Your task to perform on an android device: open app "McDonald's" (install if not already installed) Image 0: 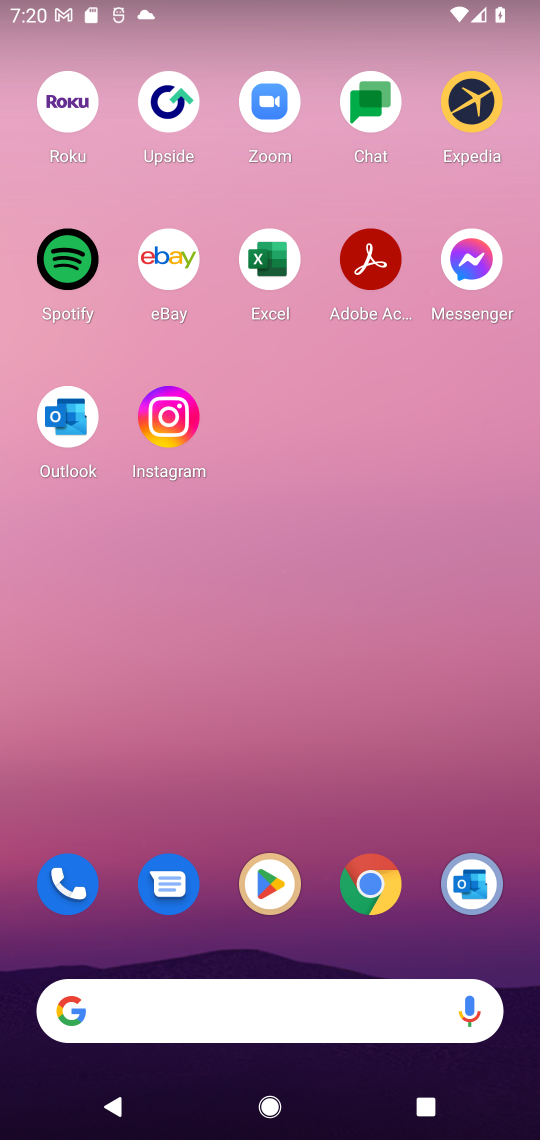
Step 0: drag from (232, 1016) to (308, 176)
Your task to perform on an android device: open app "McDonald's" (install if not already installed) Image 1: 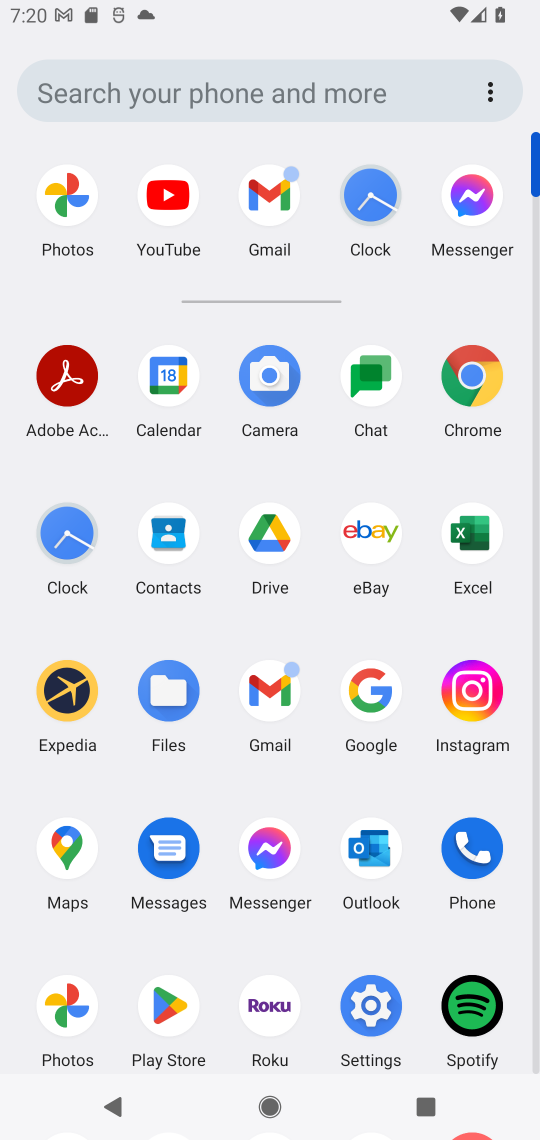
Step 1: click (168, 1014)
Your task to perform on an android device: open app "McDonald's" (install if not already installed) Image 2: 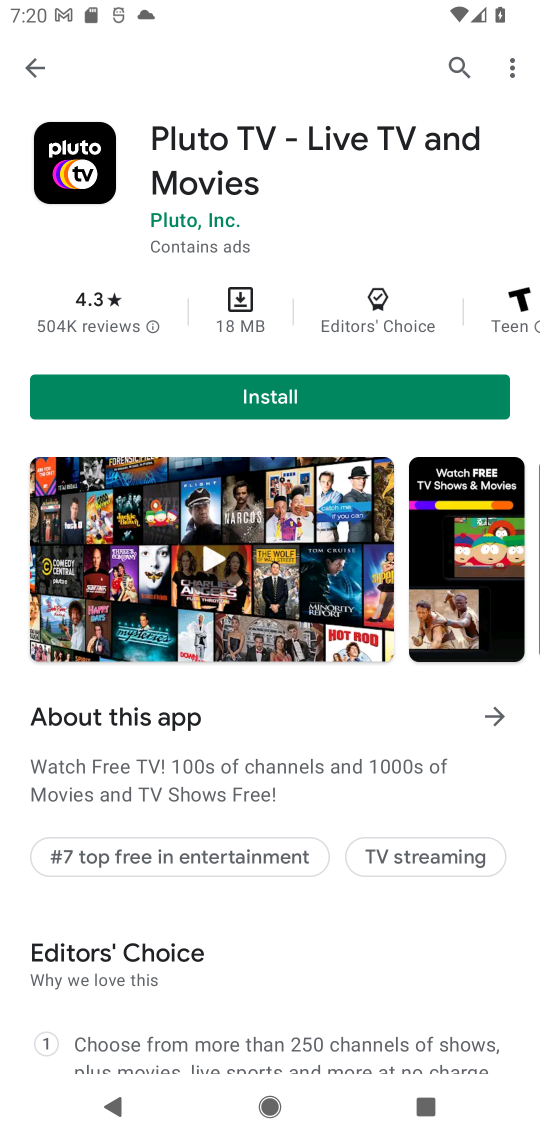
Step 2: press back button
Your task to perform on an android device: open app "McDonald's" (install if not already installed) Image 3: 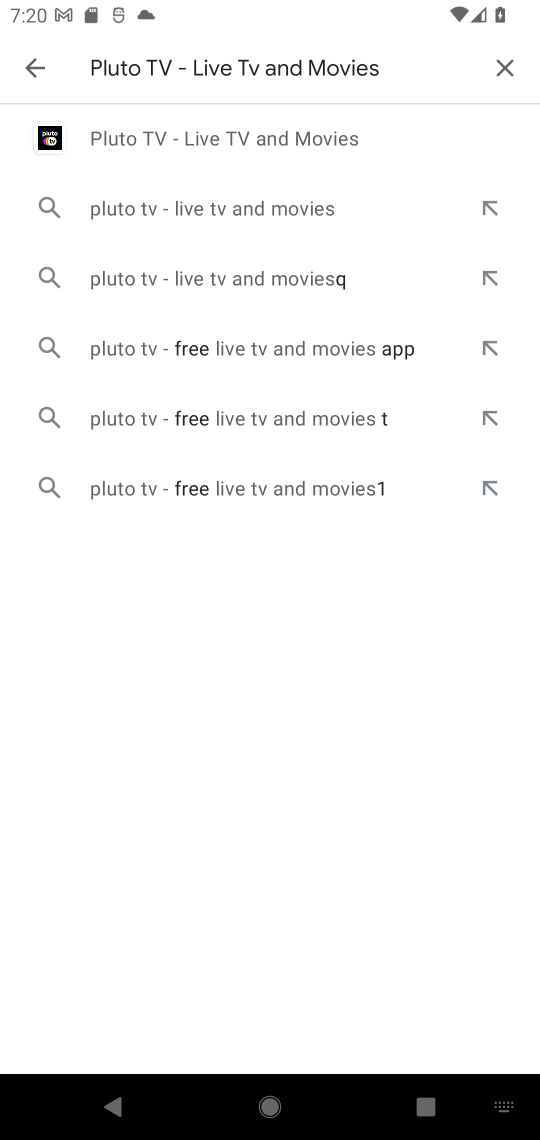
Step 3: press back button
Your task to perform on an android device: open app "McDonald's" (install if not already installed) Image 4: 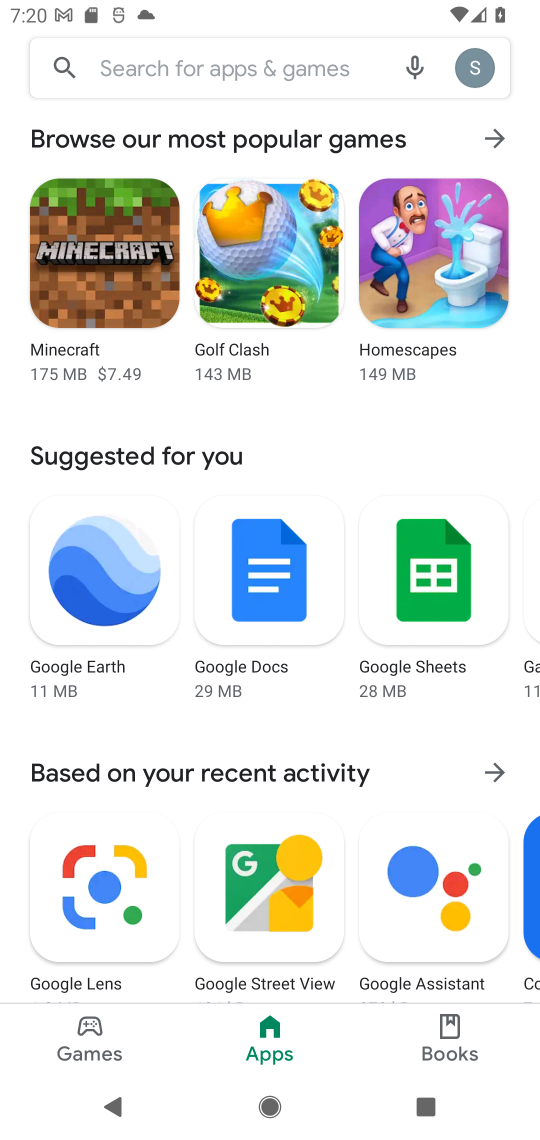
Step 4: click (335, 80)
Your task to perform on an android device: open app "McDonald's" (install if not already installed) Image 5: 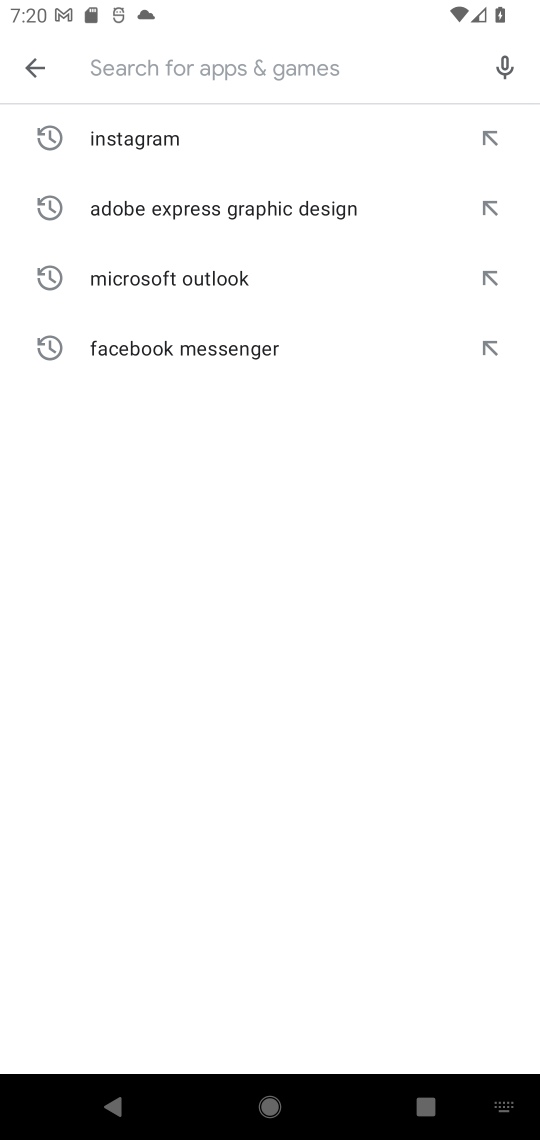
Step 5: type "McDonald's"
Your task to perform on an android device: open app "McDonald's" (install if not already installed) Image 6: 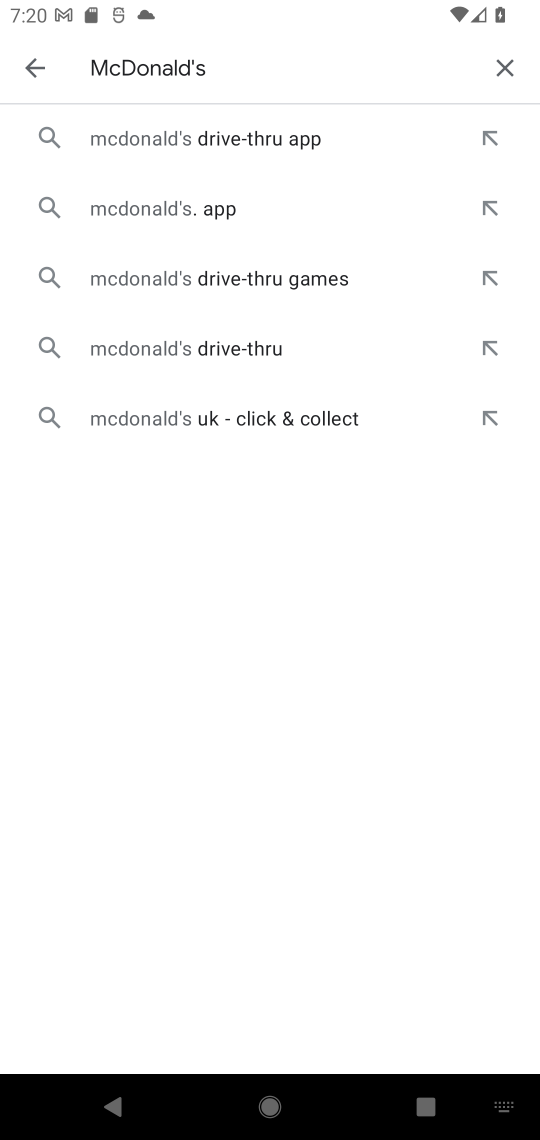
Step 6: click (205, 222)
Your task to perform on an android device: open app "McDonald's" (install if not already installed) Image 7: 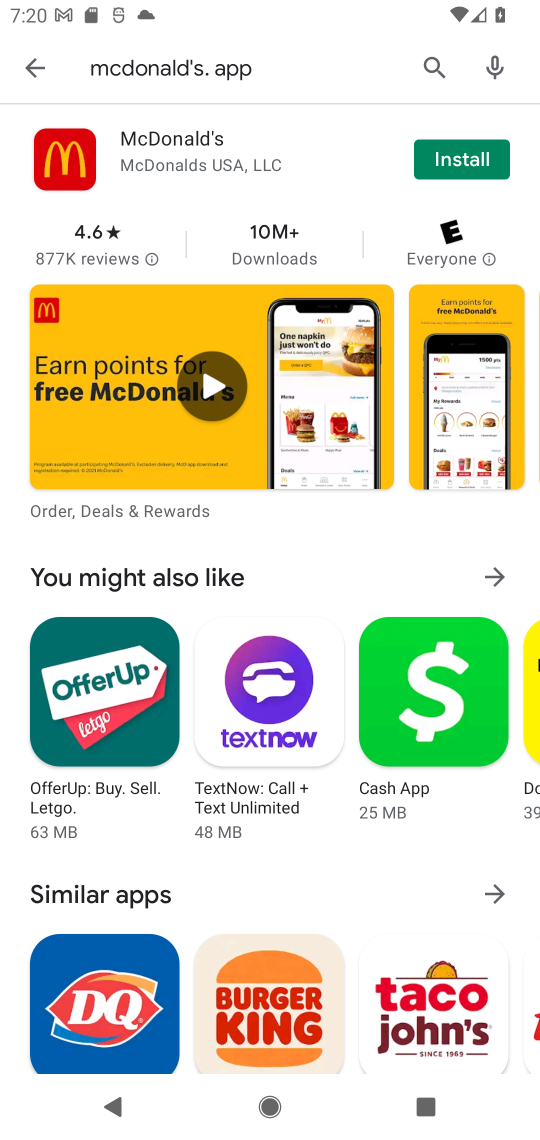
Step 7: click (459, 162)
Your task to perform on an android device: open app "McDonald's" (install if not already installed) Image 8: 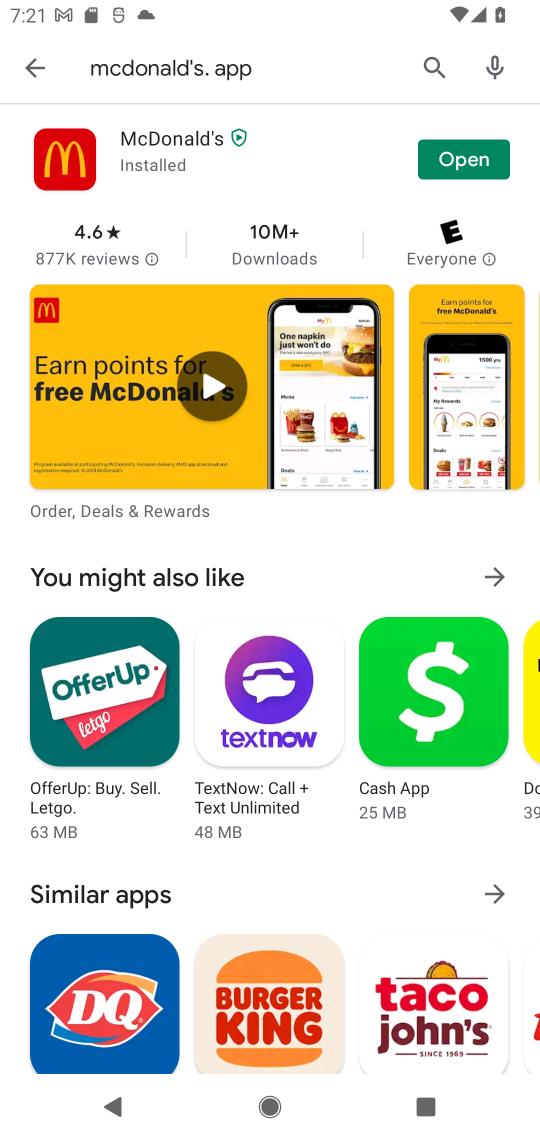
Step 8: click (459, 162)
Your task to perform on an android device: open app "McDonald's" (install if not already installed) Image 9: 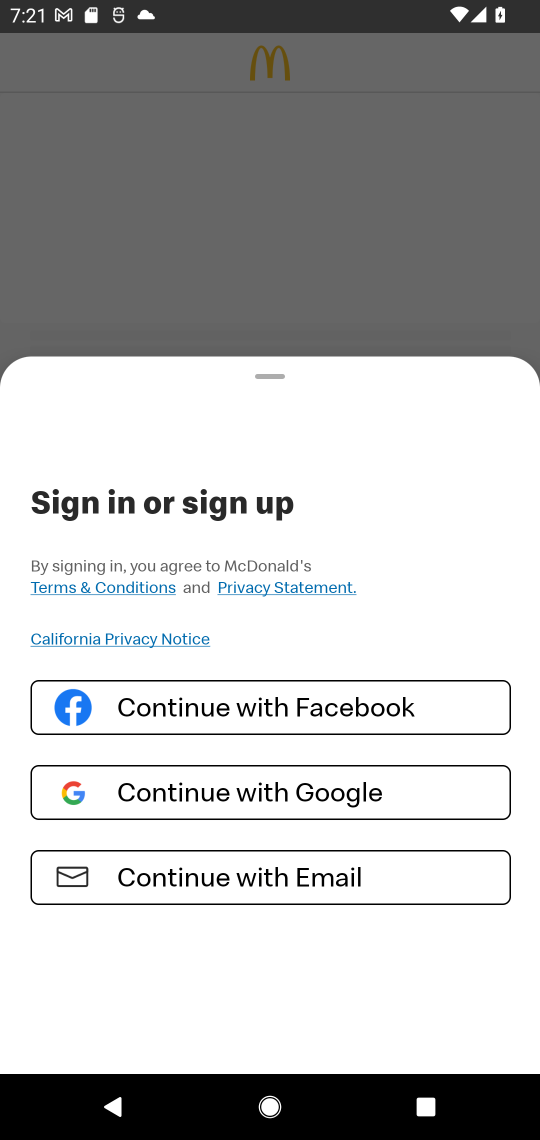
Step 9: task complete